Your task to perform on an android device: turn off wifi Image 0: 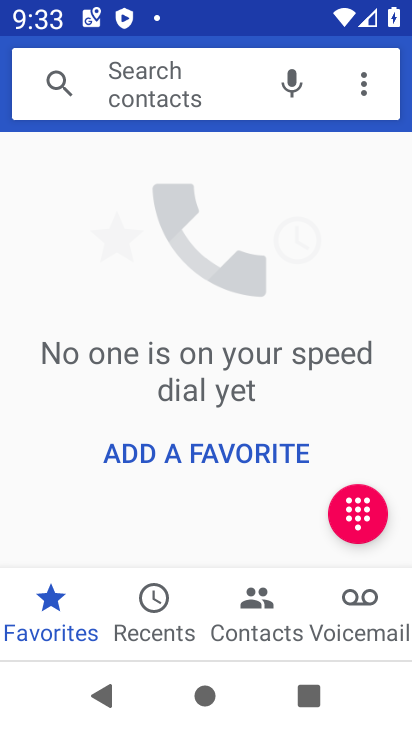
Step 0: press home button
Your task to perform on an android device: turn off wifi Image 1: 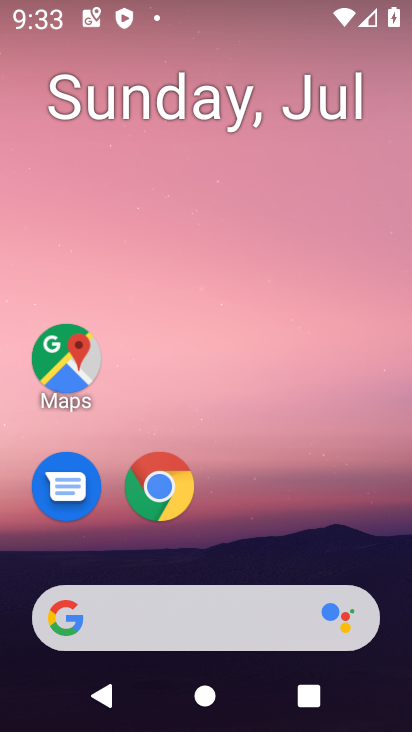
Step 1: drag from (370, 536) to (347, 84)
Your task to perform on an android device: turn off wifi Image 2: 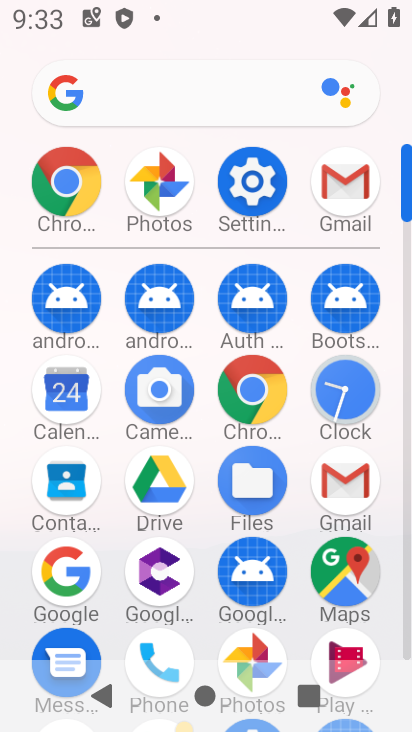
Step 2: click (264, 184)
Your task to perform on an android device: turn off wifi Image 3: 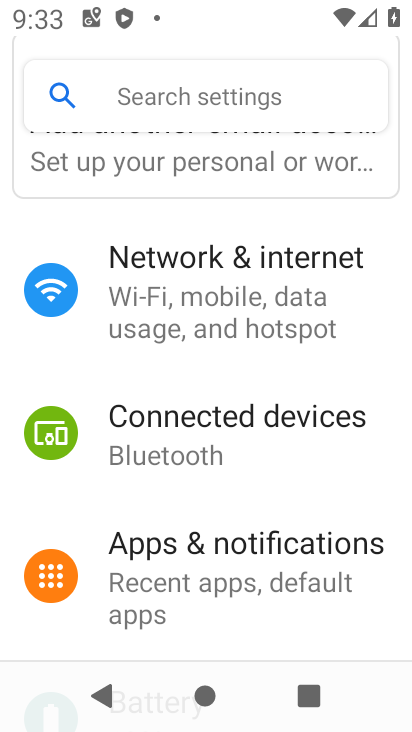
Step 3: drag from (364, 477) to (370, 388)
Your task to perform on an android device: turn off wifi Image 4: 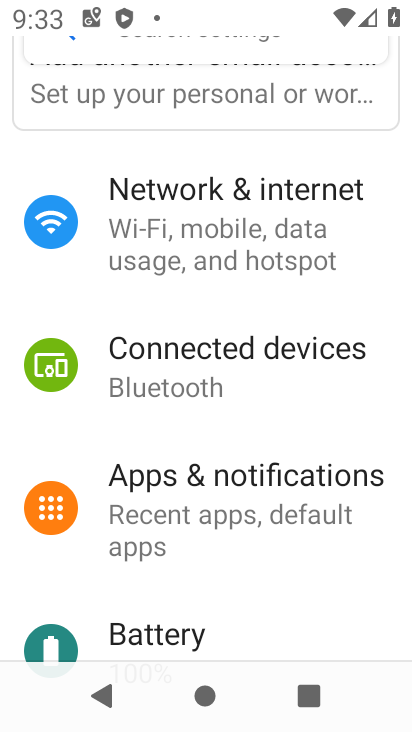
Step 4: drag from (346, 580) to (344, 453)
Your task to perform on an android device: turn off wifi Image 5: 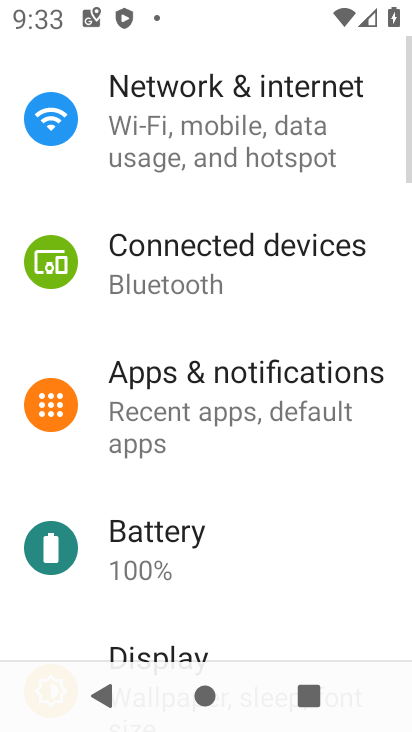
Step 5: drag from (340, 597) to (341, 470)
Your task to perform on an android device: turn off wifi Image 6: 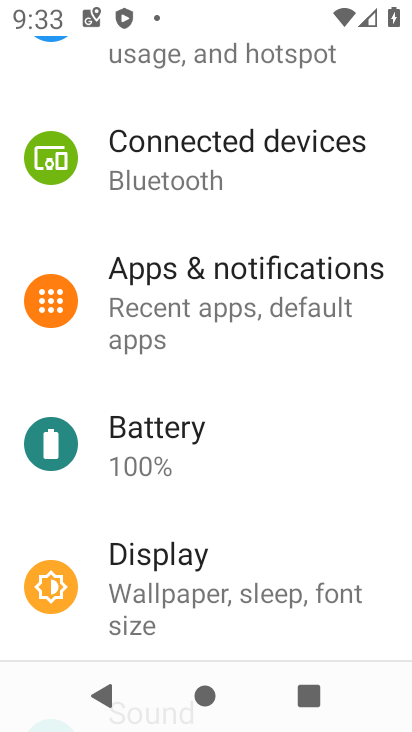
Step 6: drag from (366, 629) to (368, 510)
Your task to perform on an android device: turn off wifi Image 7: 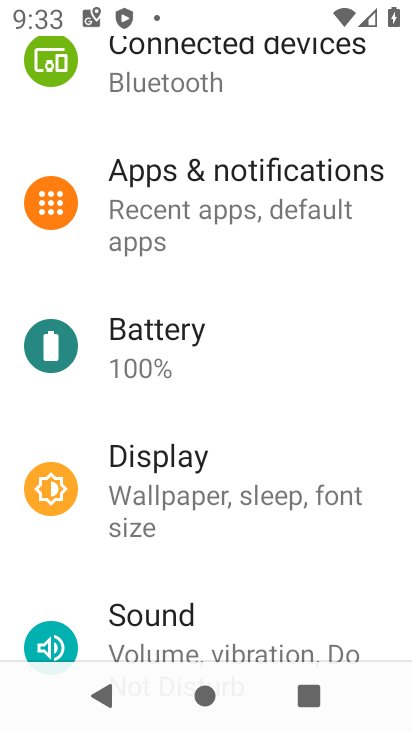
Step 7: drag from (358, 566) to (346, 293)
Your task to perform on an android device: turn off wifi Image 8: 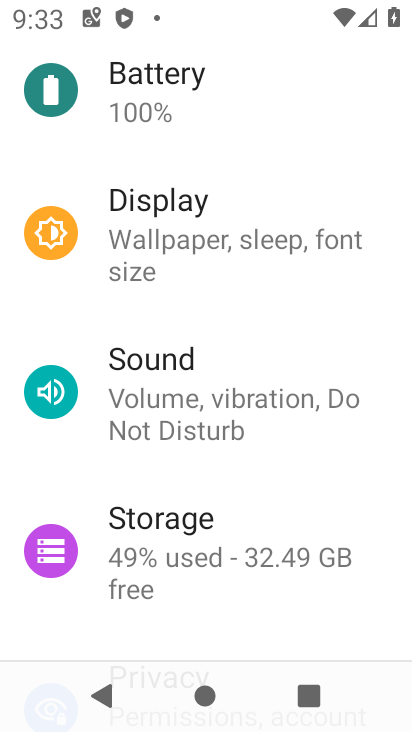
Step 8: drag from (332, 463) to (323, 317)
Your task to perform on an android device: turn off wifi Image 9: 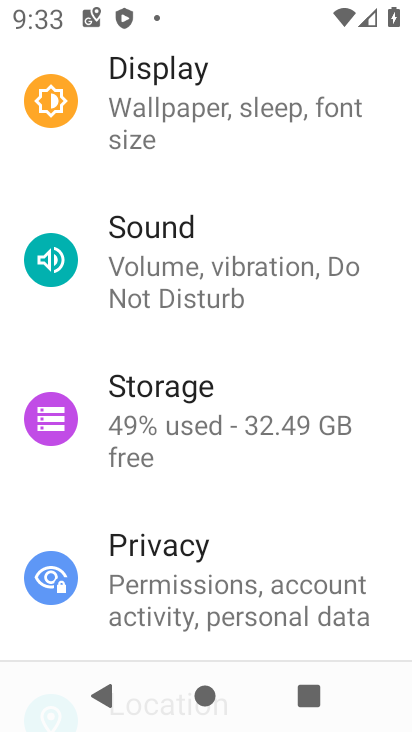
Step 9: drag from (306, 502) to (303, 307)
Your task to perform on an android device: turn off wifi Image 10: 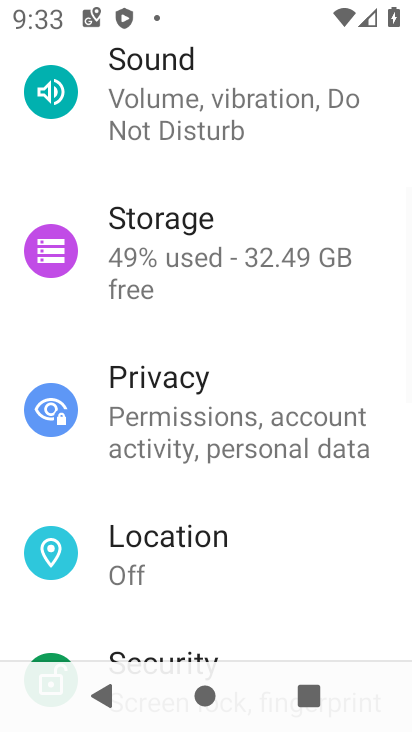
Step 10: drag from (289, 544) to (294, 373)
Your task to perform on an android device: turn off wifi Image 11: 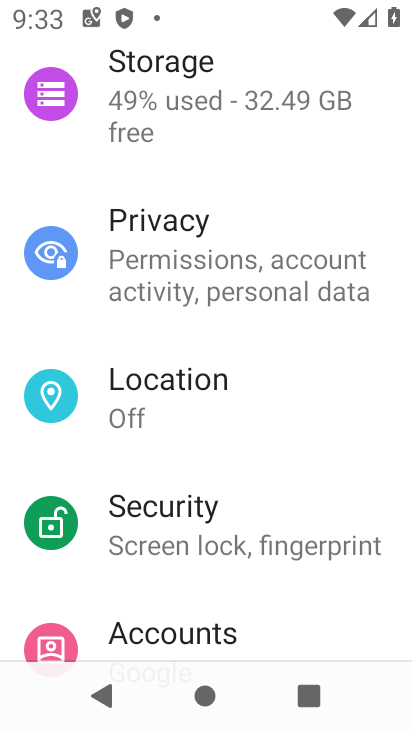
Step 11: drag from (295, 563) to (305, 417)
Your task to perform on an android device: turn off wifi Image 12: 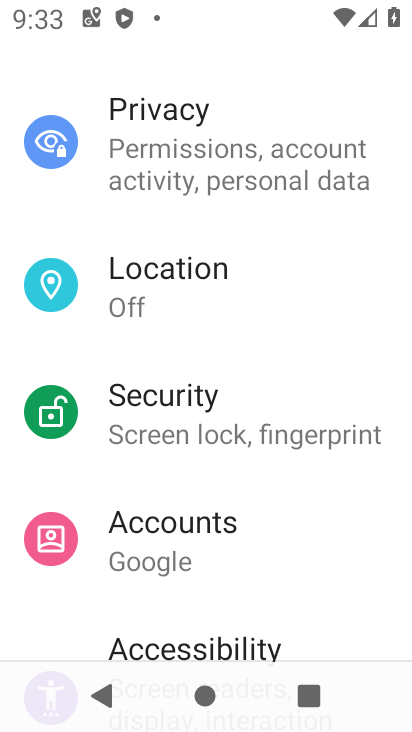
Step 12: drag from (328, 253) to (343, 374)
Your task to perform on an android device: turn off wifi Image 13: 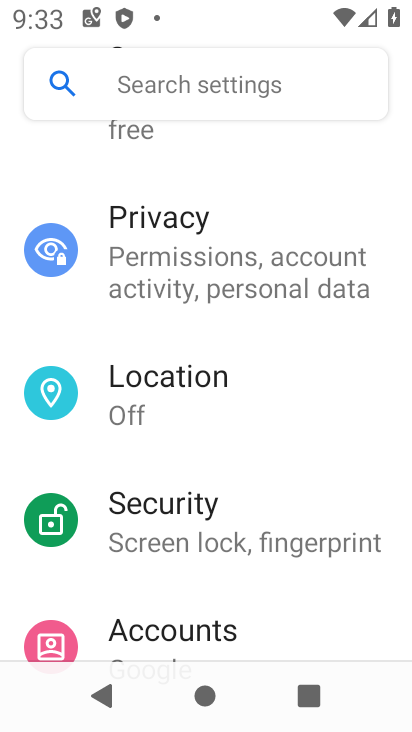
Step 13: drag from (350, 186) to (362, 337)
Your task to perform on an android device: turn off wifi Image 14: 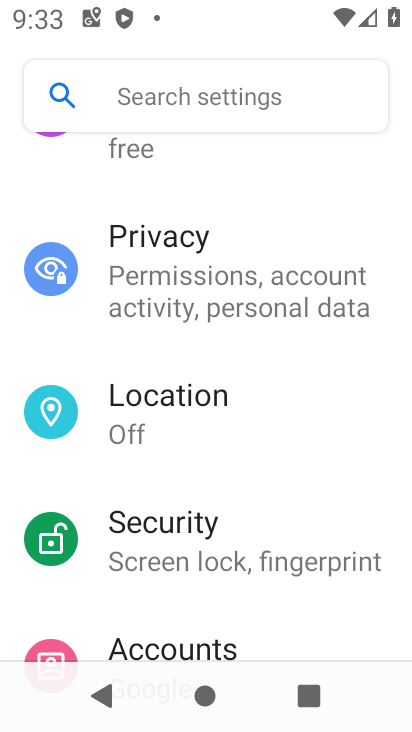
Step 14: drag from (358, 163) to (355, 373)
Your task to perform on an android device: turn off wifi Image 15: 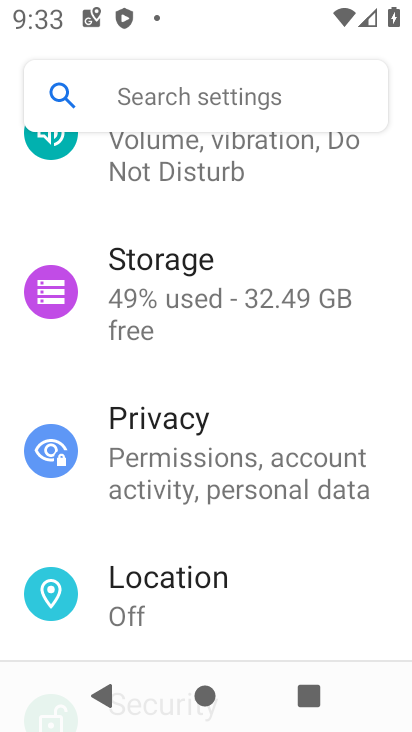
Step 15: drag from (351, 195) to (353, 343)
Your task to perform on an android device: turn off wifi Image 16: 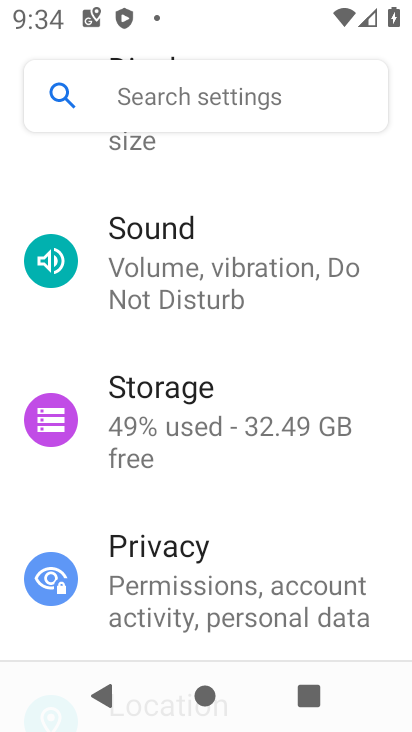
Step 16: drag from (361, 176) to (355, 336)
Your task to perform on an android device: turn off wifi Image 17: 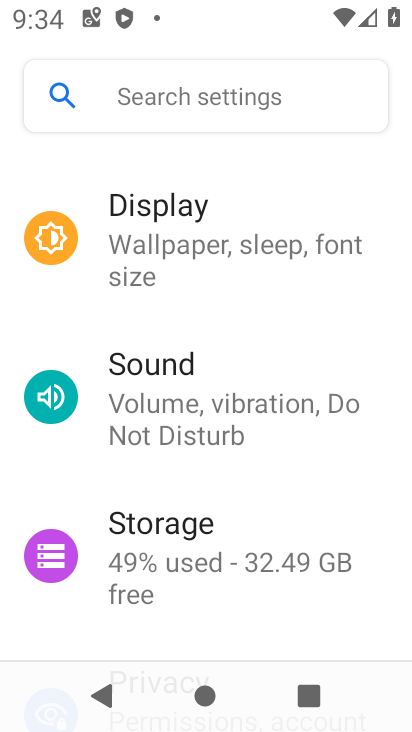
Step 17: drag from (363, 190) to (364, 355)
Your task to perform on an android device: turn off wifi Image 18: 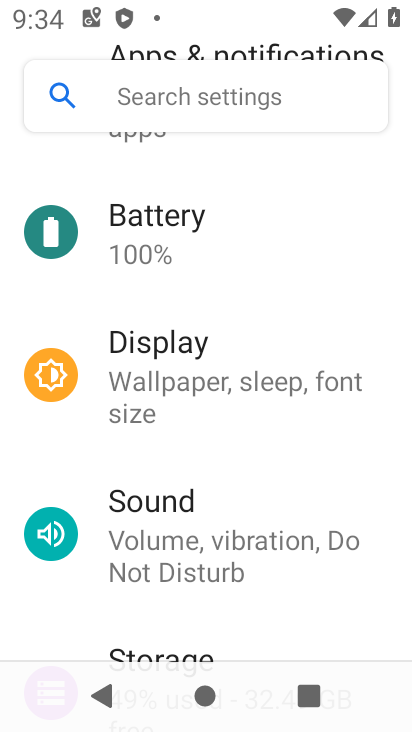
Step 18: drag from (353, 172) to (353, 375)
Your task to perform on an android device: turn off wifi Image 19: 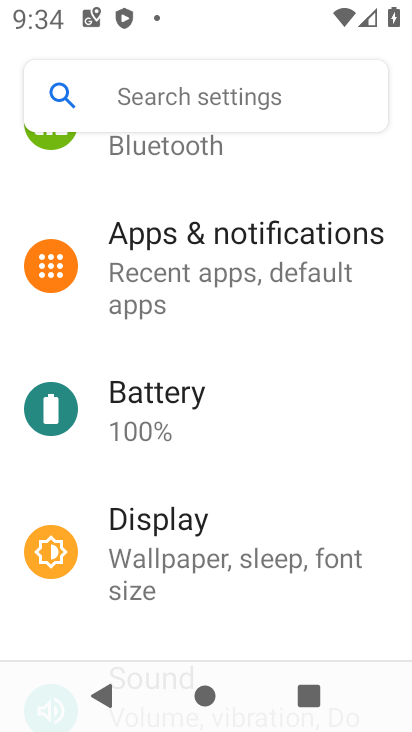
Step 19: drag from (347, 163) to (347, 392)
Your task to perform on an android device: turn off wifi Image 20: 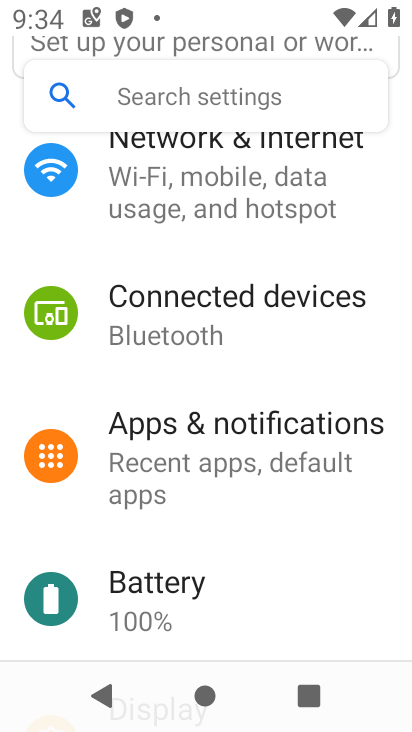
Step 20: drag from (364, 183) to (356, 300)
Your task to perform on an android device: turn off wifi Image 21: 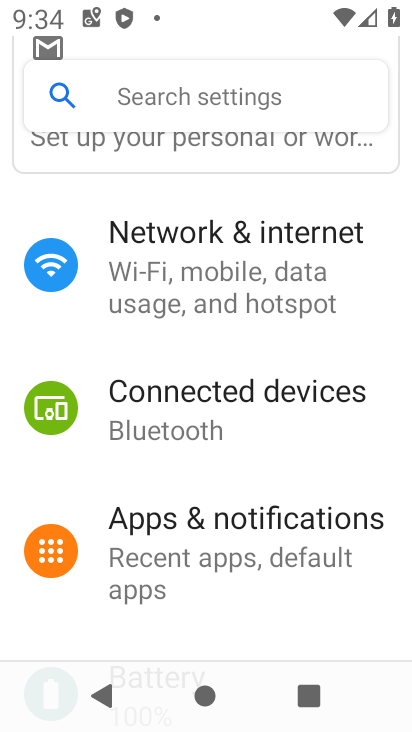
Step 21: click (316, 251)
Your task to perform on an android device: turn off wifi Image 22: 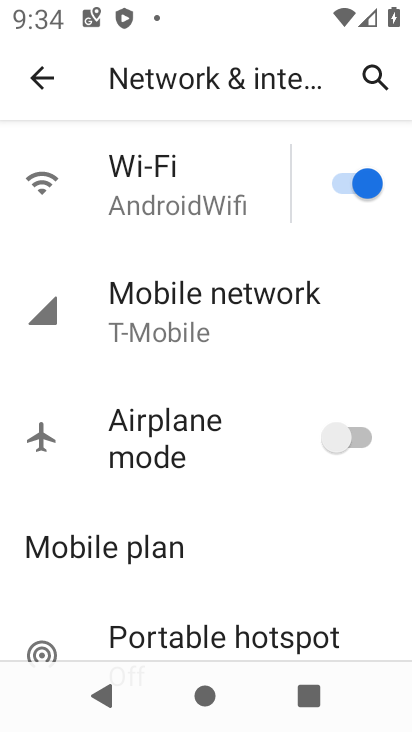
Step 22: click (373, 191)
Your task to perform on an android device: turn off wifi Image 23: 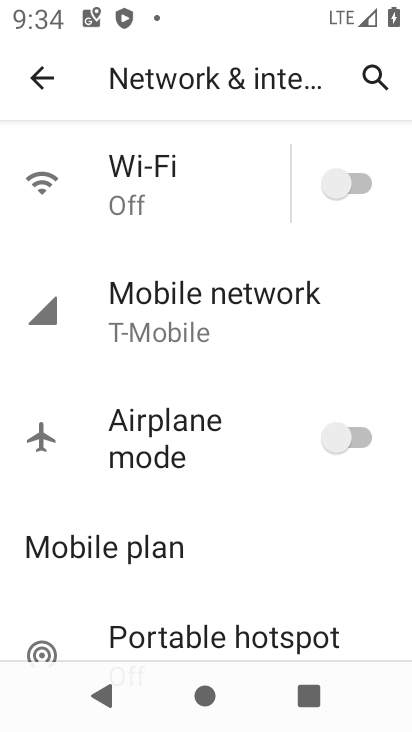
Step 23: task complete